Your task to perform on an android device: turn on airplane mode Image 0: 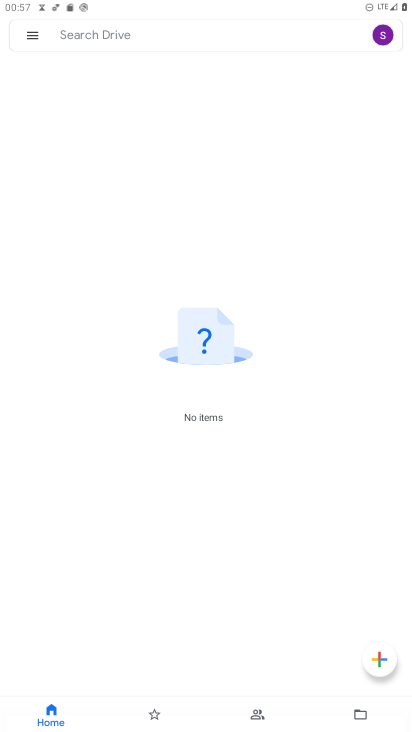
Step 0: press home button
Your task to perform on an android device: turn on airplane mode Image 1: 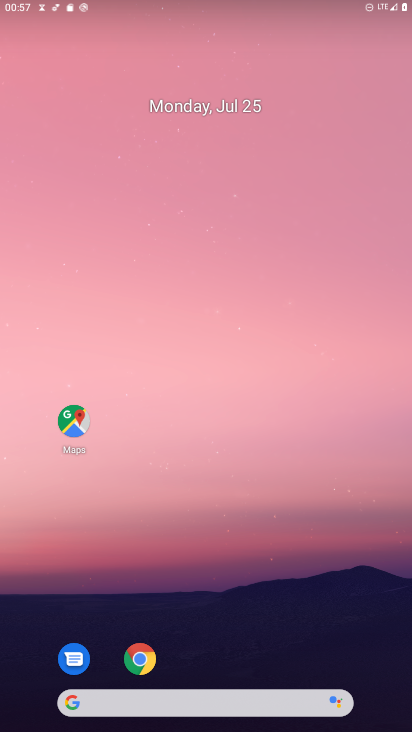
Step 1: drag from (247, 634) to (248, 133)
Your task to perform on an android device: turn on airplane mode Image 2: 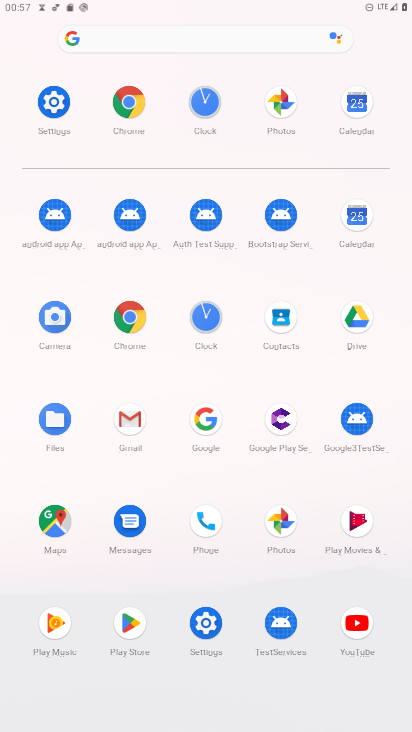
Step 2: click (40, 108)
Your task to perform on an android device: turn on airplane mode Image 3: 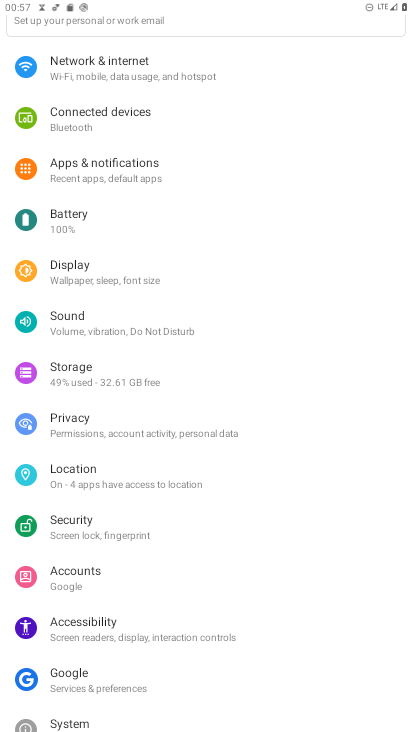
Step 3: drag from (116, 87) to (119, 438)
Your task to perform on an android device: turn on airplane mode Image 4: 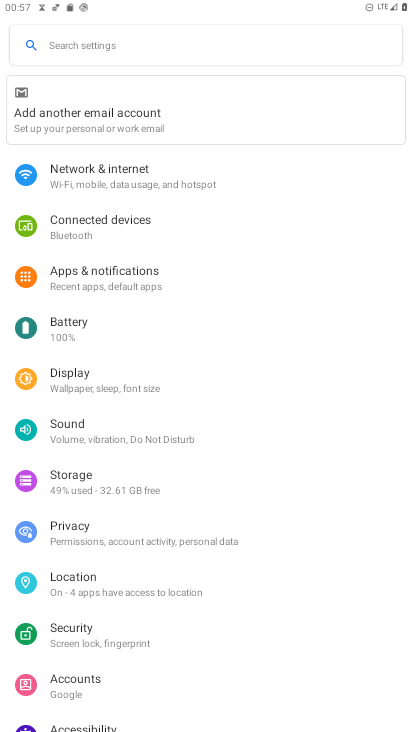
Step 4: click (92, 178)
Your task to perform on an android device: turn on airplane mode Image 5: 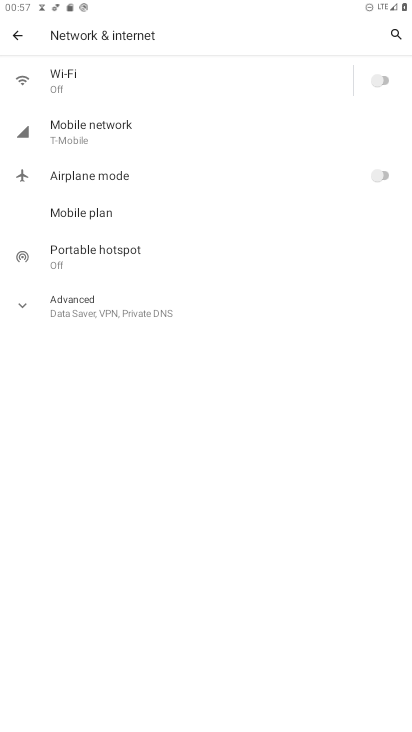
Step 5: click (382, 171)
Your task to perform on an android device: turn on airplane mode Image 6: 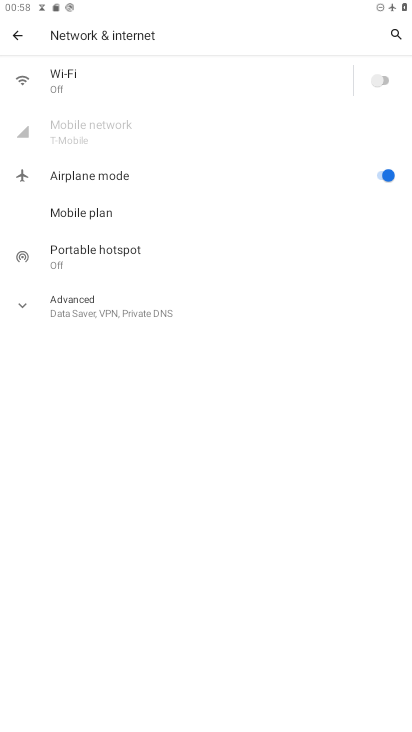
Step 6: task complete